Your task to perform on an android device: open chrome privacy settings Image 0: 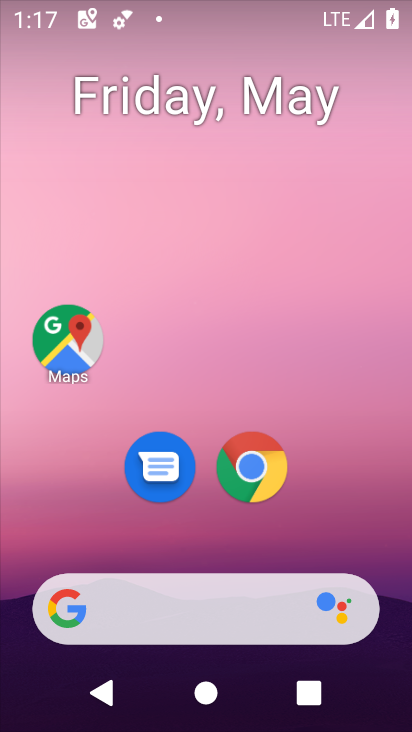
Step 0: drag from (339, 457) to (364, 36)
Your task to perform on an android device: open chrome privacy settings Image 1: 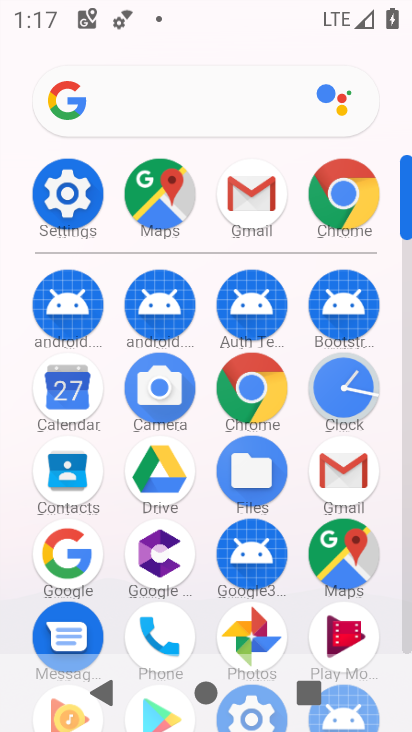
Step 1: click (65, 204)
Your task to perform on an android device: open chrome privacy settings Image 2: 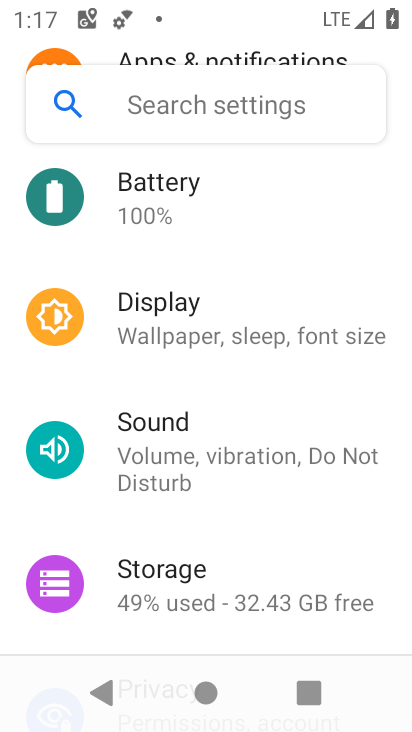
Step 2: drag from (256, 251) to (221, 637)
Your task to perform on an android device: open chrome privacy settings Image 3: 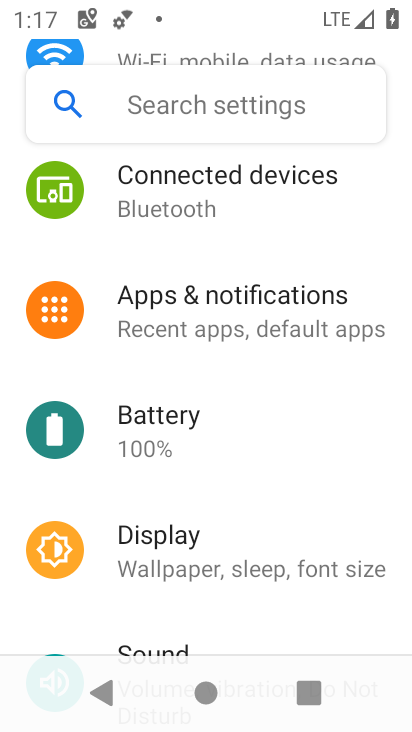
Step 3: drag from (259, 251) to (284, 657)
Your task to perform on an android device: open chrome privacy settings Image 4: 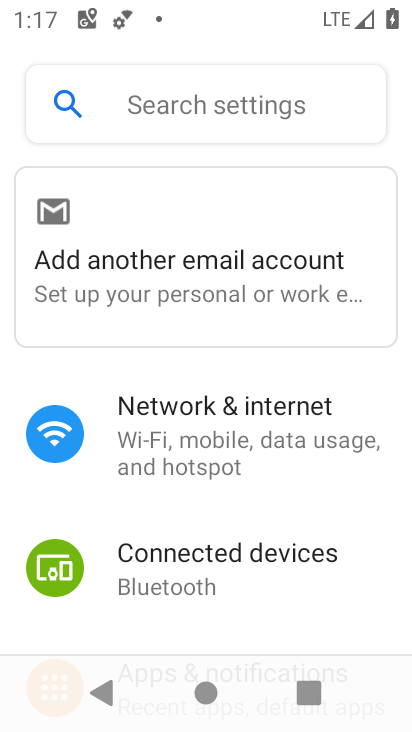
Step 4: drag from (252, 612) to (231, 195)
Your task to perform on an android device: open chrome privacy settings Image 5: 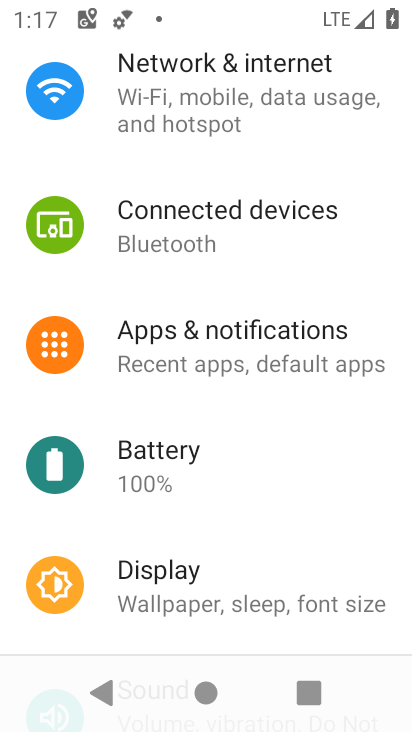
Step 5: drag from (233, 527) to (245, 201)
Your task to perform on an android device: open chrome privacy settings Image 6: 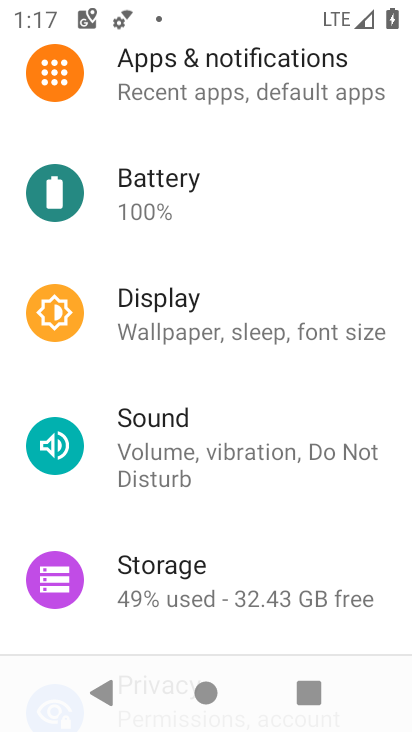
Step 6: drag from (245, 562) to (320, 142)
Your task to perform on an android device: open chrome privacy settings Image 7: 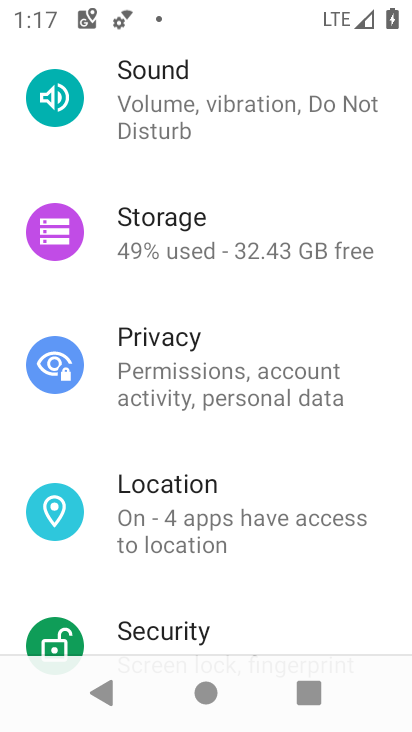
Step 7: drag from (323, 156) to (284, 509)
Your task to perform on an android device: open chrome privacy settings Image 8: 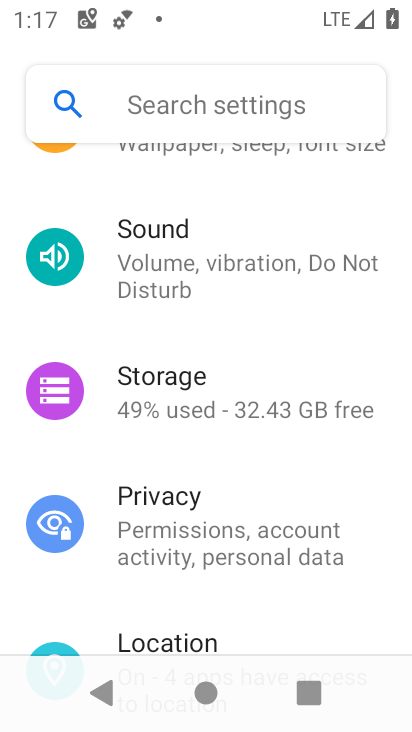
Step 8: drag from (259, 141) to (256, 537)
Your task to perform on an android device: open chrome privacy settings Image 9: 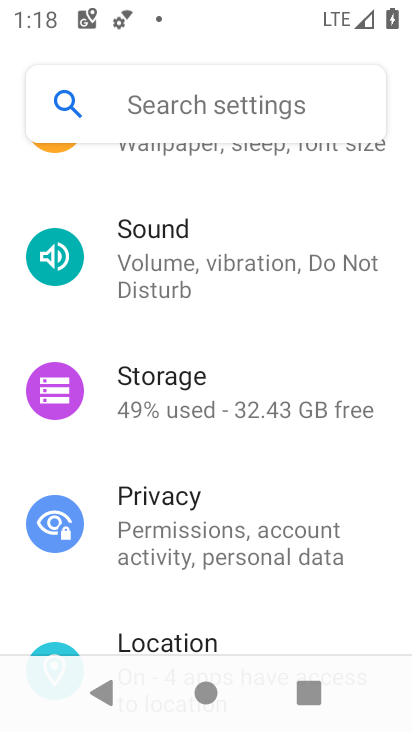
Step 9: drag from (253, 581) to (277, 300)
Your task to perform on an android device: open chrome privacy settings Image 10: 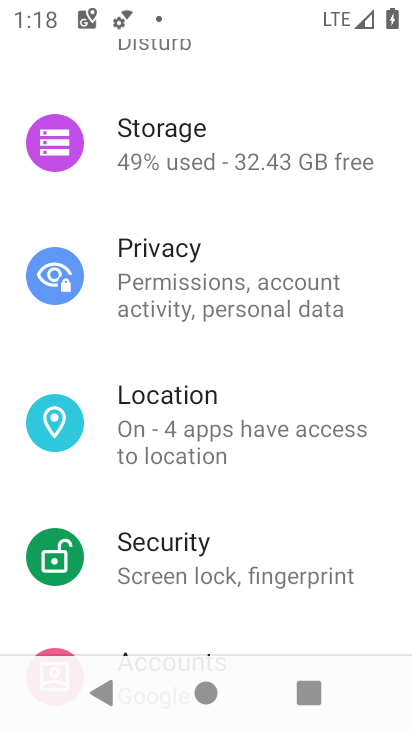
Step 10: click (239, 299)
Your task to perform on an android device: open chrome privacy settings Image 11: 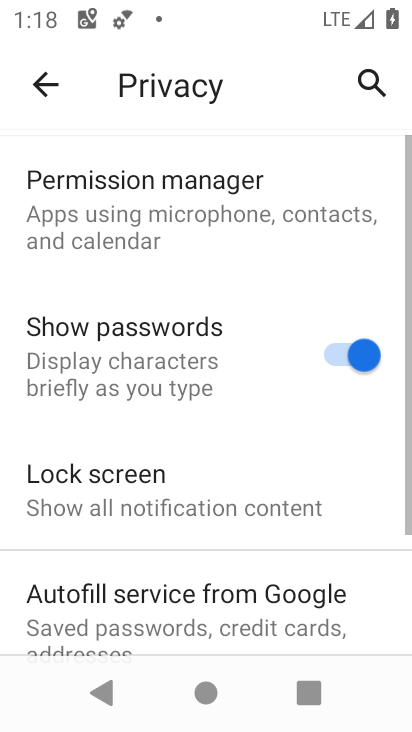
Step 11: task complete